Your task to perform on an android device: change the clock display to show seconds Image 0: 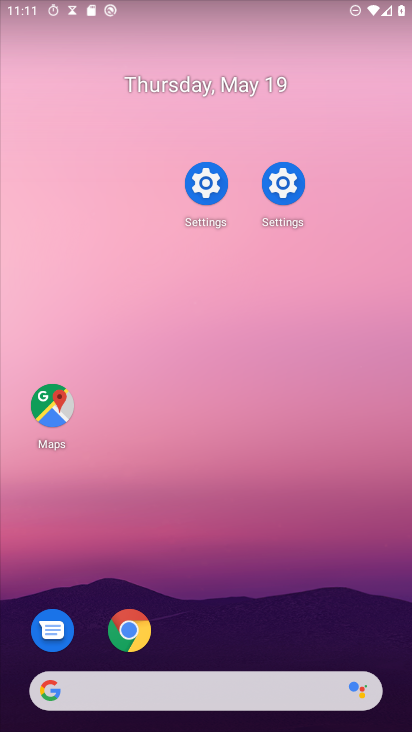
Step 0: drag from (287, 632) to (135, 214)
Your task to perform on an android device: change the clock display to show seconds Image 1: 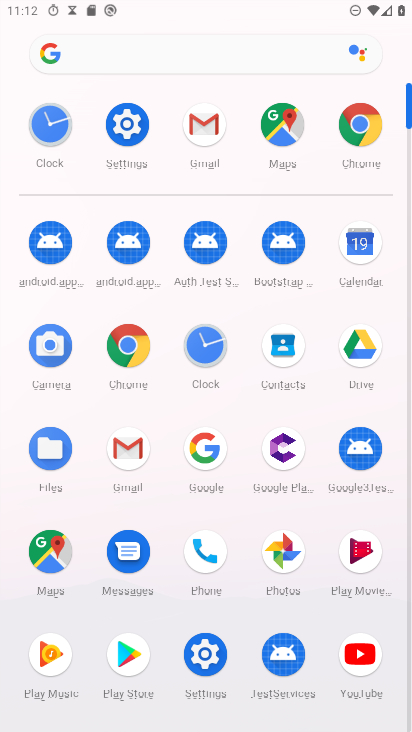
Step 1: drag from (327, 636) to (129, 39)
Your task to perform on an android device: change the clock display to show seconds Image 2: 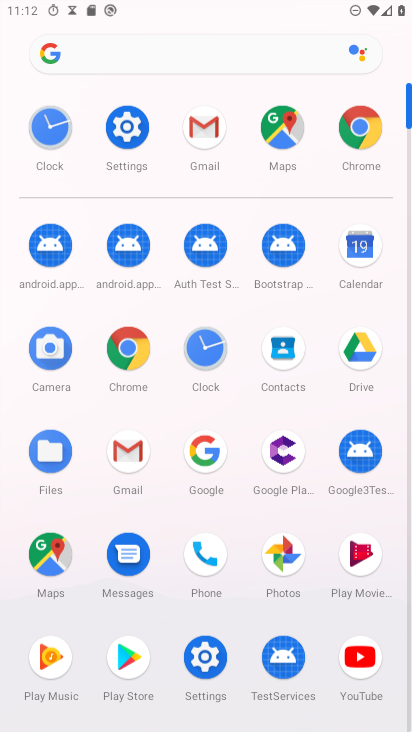
Step 2: drag from (230, 446) to (167, 39)
Your task to perform on an android device: change the clock display to show seconds Image 3: 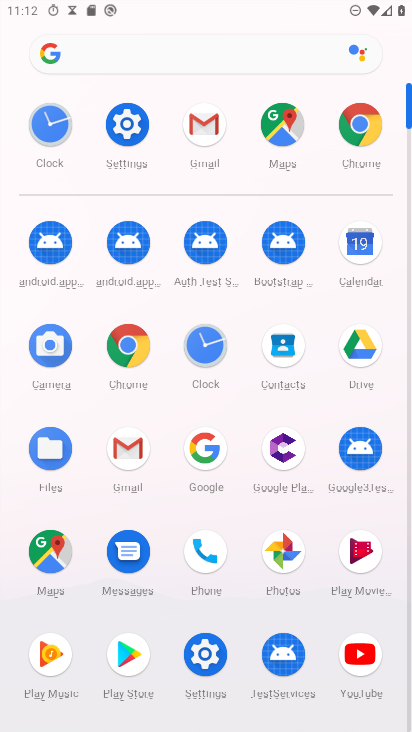
Step 3: click (203, 357)
Your task to perform on an android device: change the clock display to show seconds Image 4: 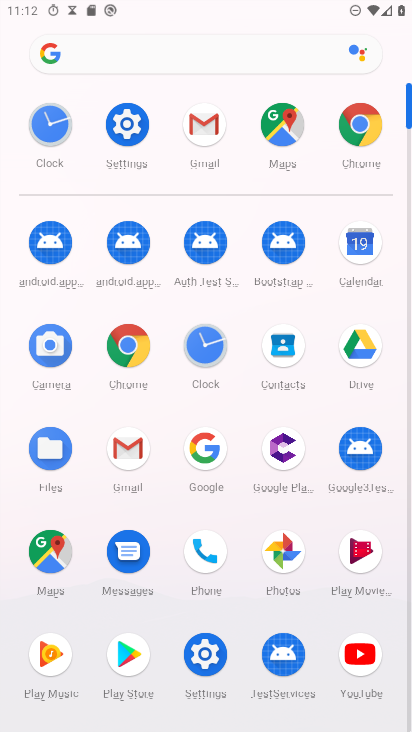
Step 4: click (205, 359)
Your task to perform on an android device: change the clock display to show seconds Image 5: 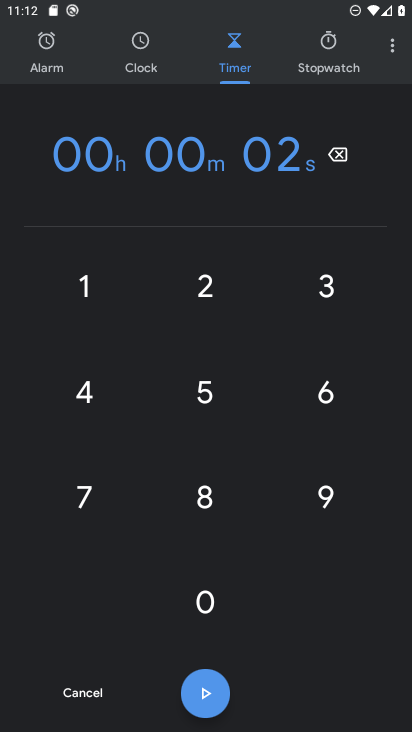
Step 5: click (216, 346)
Your task to perform on an android device: change the clock display to show seconds Image 6: 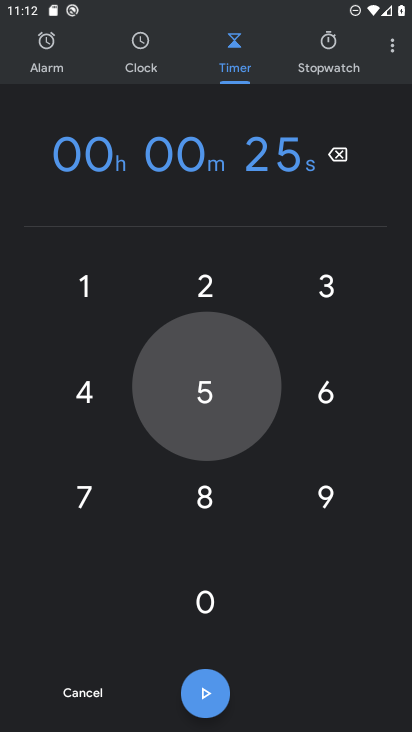
Step 6: click (229, 333)
Your task to perform on an android device: change the clock display to show seconds Image 7: 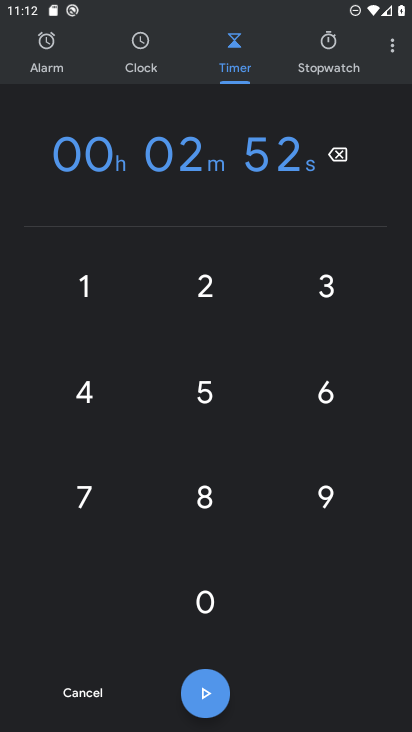
Step 7: click (391, 49)
Your task to perform on an android device: change the clock display to show seconds Image 8: 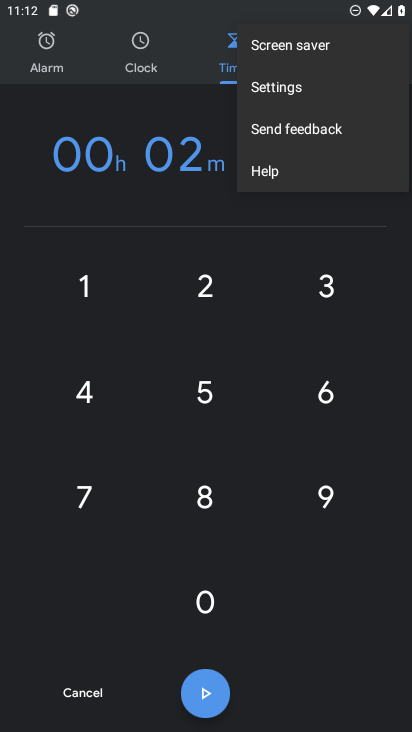
Step 8: click (265, 97)
Your task to perform on an android device: change the clock display to show seconds Image 9: 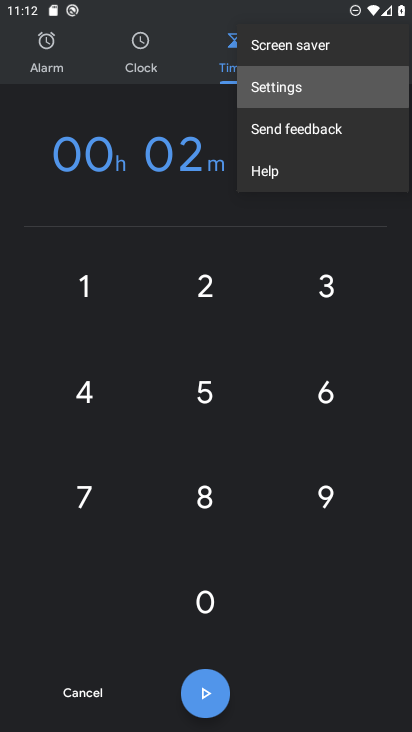
Step 9: click (265, 98)
Your task to perform on an android device: change the clock display to show seconds Image 10: 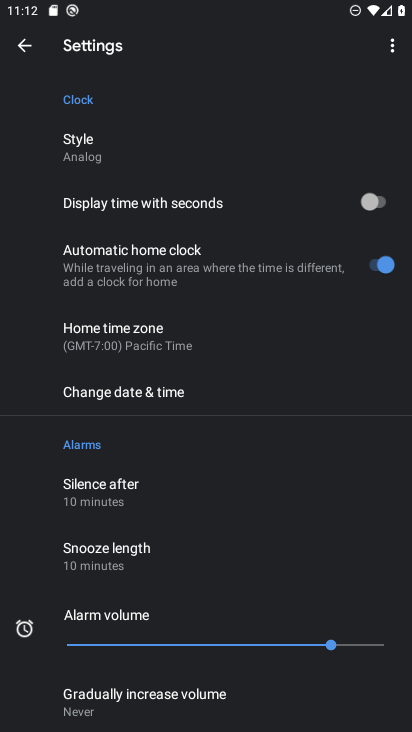
Step 10: click (377, 195)
Your task to perform on an android device: change the clock display to show seconds Image 11: 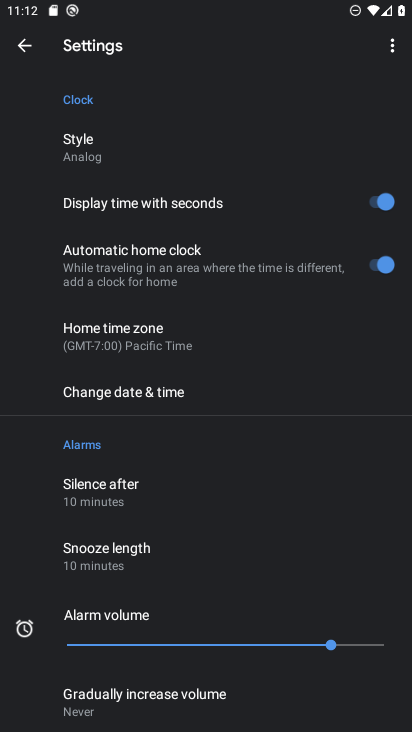
Step 11: task complete